Your task to perform on an android device: delete a single message in the gmail app Image 0: 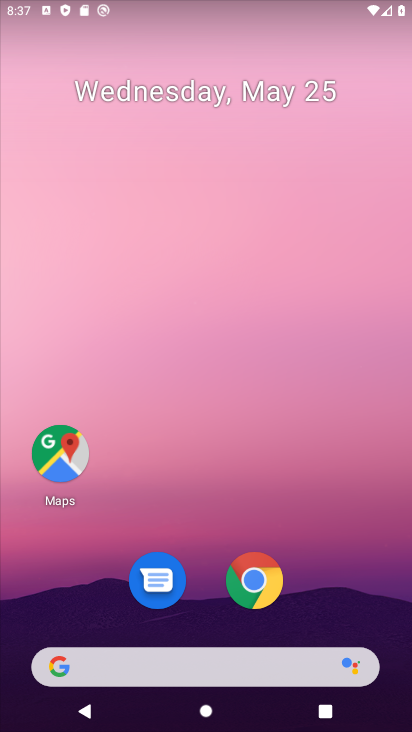
Step 0: drag from (7, 547) to (241, 171)
Your task to perform on an android device: delete a single message in the gmail app Image 1: 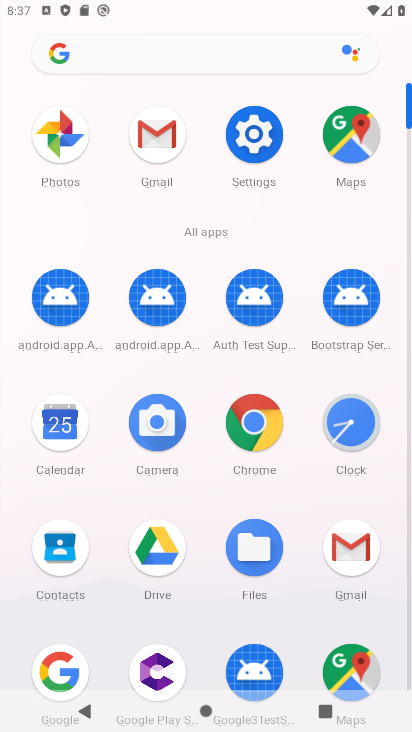
Step 1: click (354, 543)
Your task to perform on an android device: delete a single message in the gmail app Image 2: 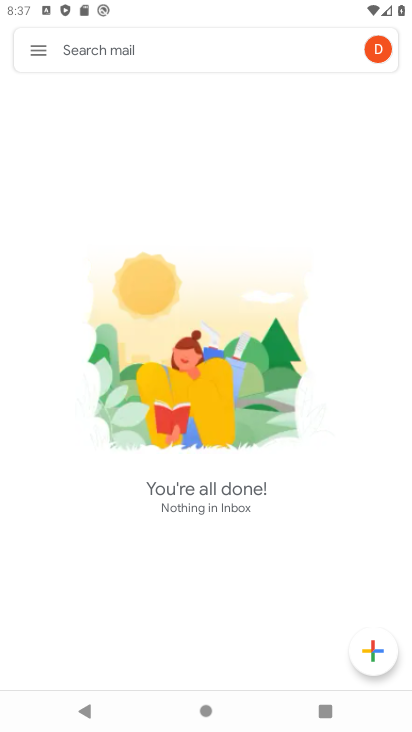
Step 2: click (35, 40)
Your task to perform on an android device: delete a single message in the gmail app Image 3: 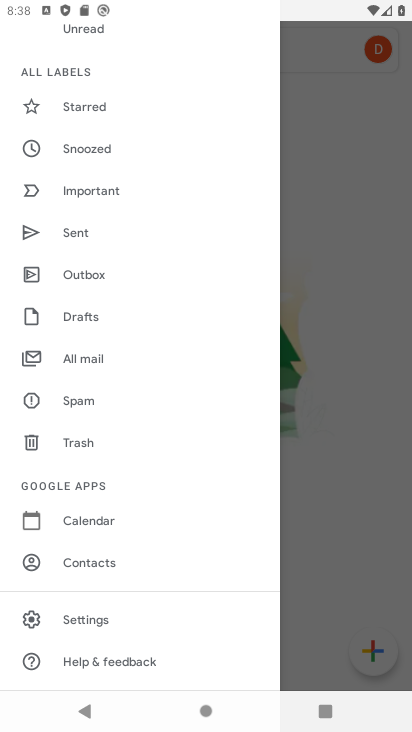
Step 3: click (85, 362)
Your task to perform on an android device: delete a single message in the gmail app Image 4: 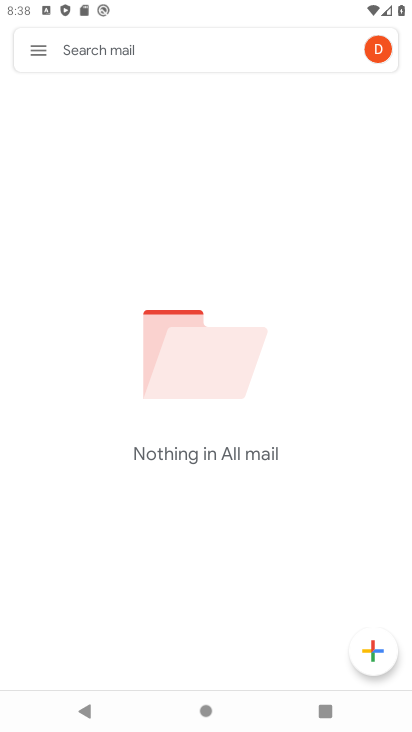
Step 4: task complete